Your task to perform on an android device: turn off notifications settings in the gmail app Image 0: 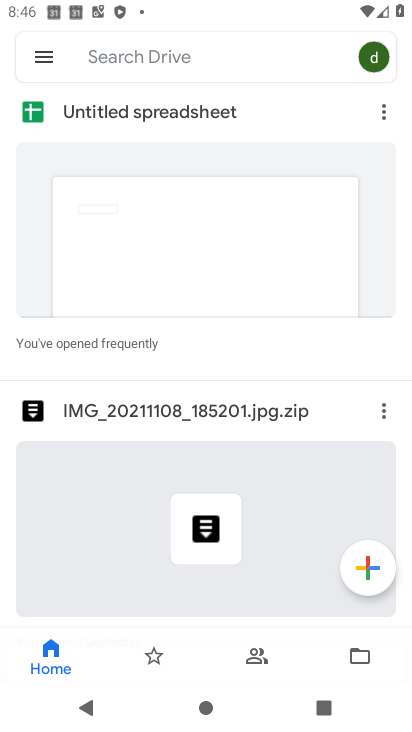
Step 0: press home button
Your task to perform on an android device: turn off notifications settings in the gmail app Image 1: 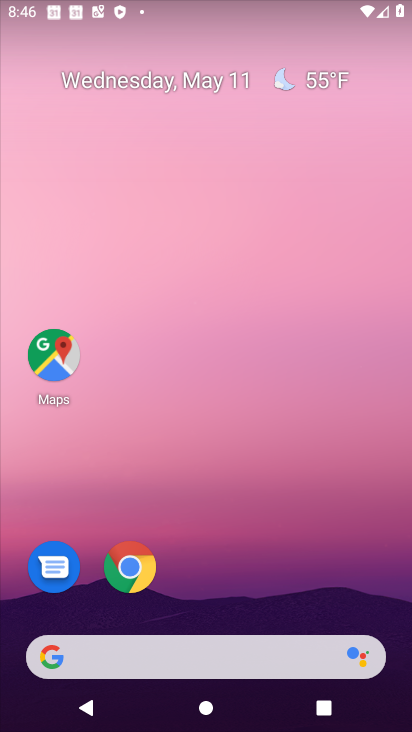
Step 1: drag from (263, 592) to (369, 0)
Your task to perform on an android device: turn off notifications settings in the gmail app Image 2: 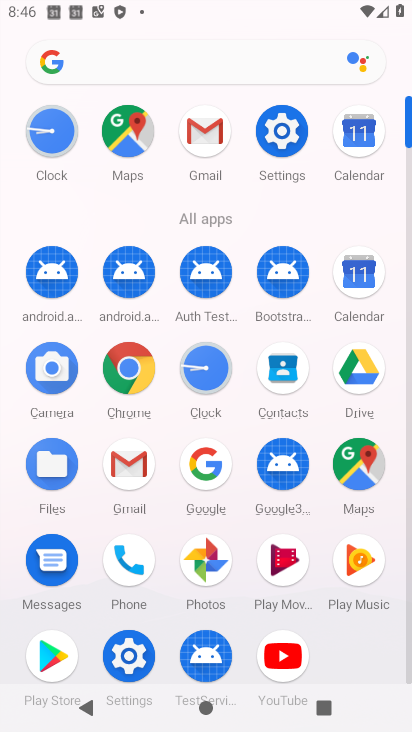
Step 2: click (136, 477)
Your task to perform on an android device: turn off notifications settings in the gmail app Image 3: 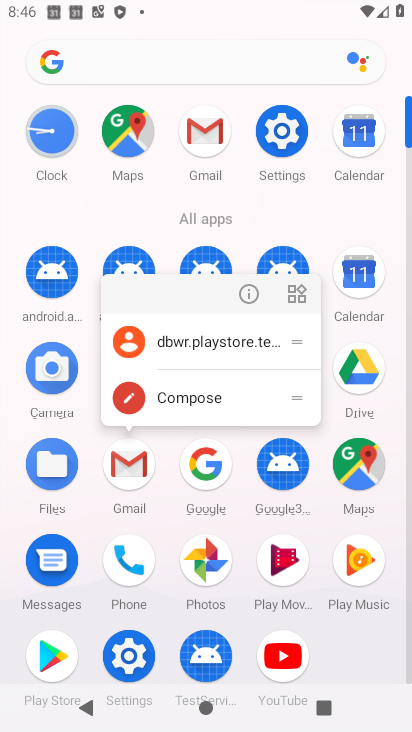
Step 3: click (137, 473)
Your task to perform on an android device: turn off notifications settings in the gmail app Image 4: 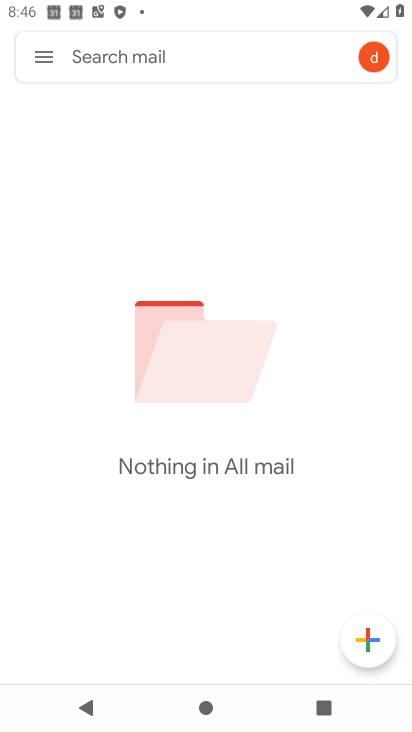
Step 4: click (51, 46)
Your task to perform on an android device: turn off notifications settings in the gmail app Image 5: 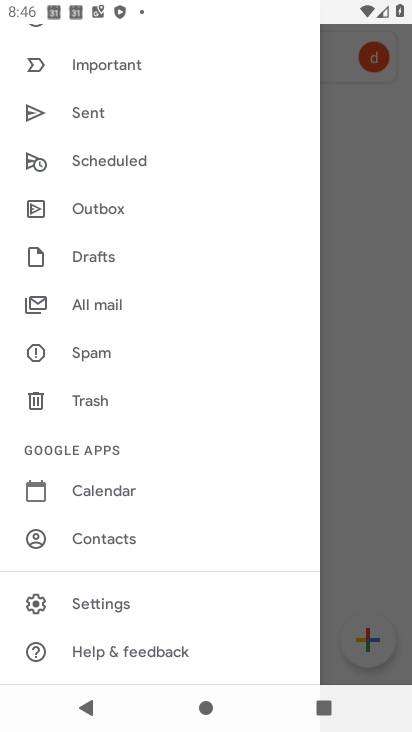
Step 5: click (111, 601)
Your task to perform on an android device: turn off notifications settings in the gmail app Image 6: 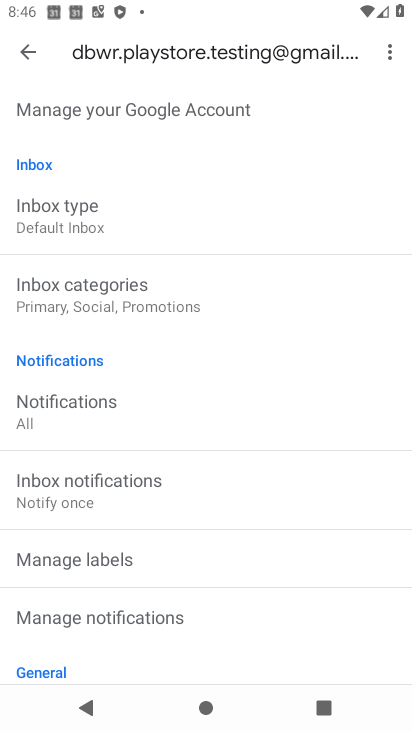
Step 6: click (25, 52)
Your task to perform on an android device: turn off notifications settings in the gmail app Image 7: 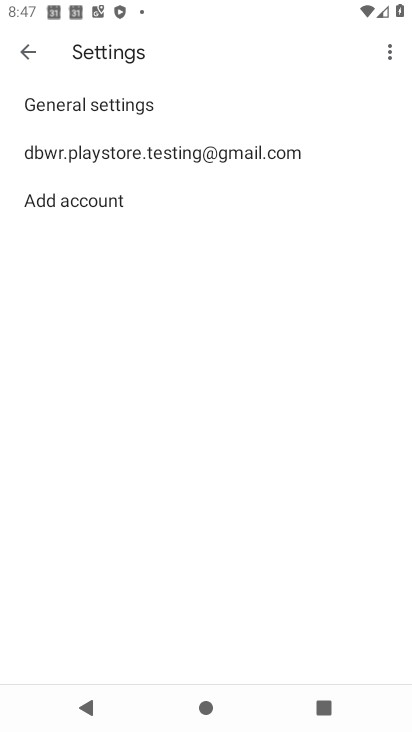
Step 7: click (123, 109)
Your task to perform on an android device: turn off notifications settings in the gmail app Image 8: 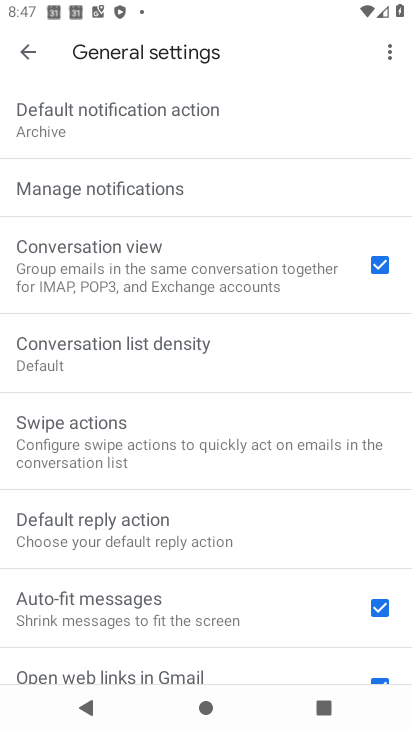
Step 8: click (104, 180)
Your task to perform on an android device: turn off notifications settings in the gmail app Image 9: 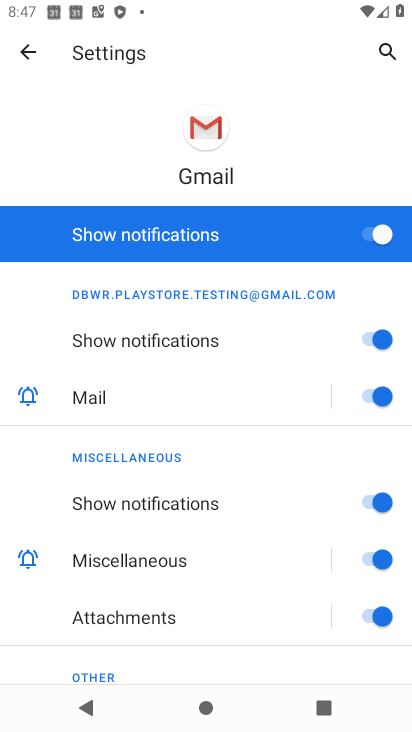
Step 9: click (348, 241)
Your task to perform on an android device: turn off notifications settings in the gmail app Image 10: 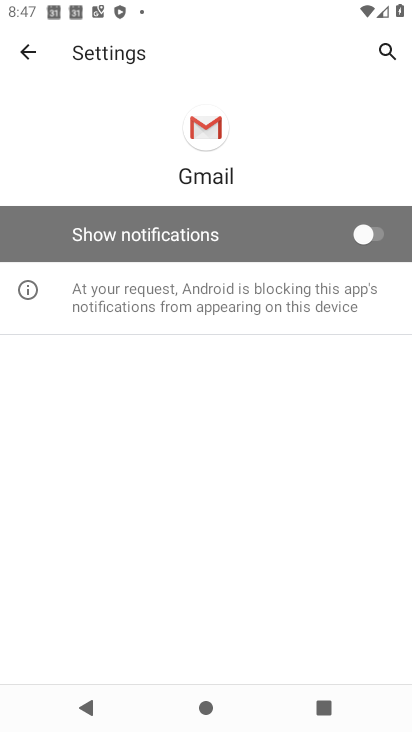
Step 10: task complete